Your task to perform on an android device: find photos in the google photos app Image 0: 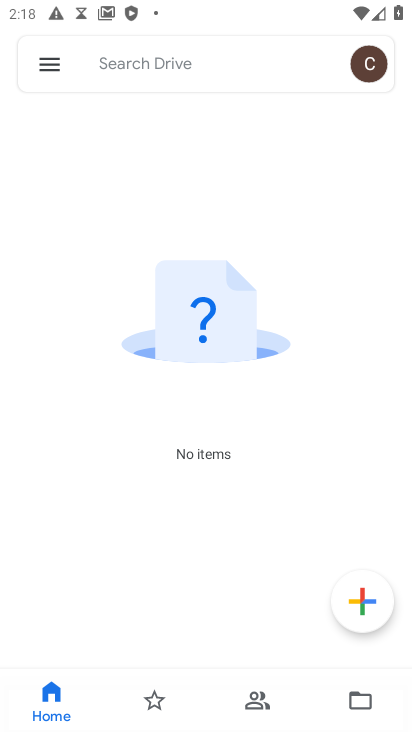
Step 0: press back button
Your task to perform on an android device: find photos in the google photos app Image 1: 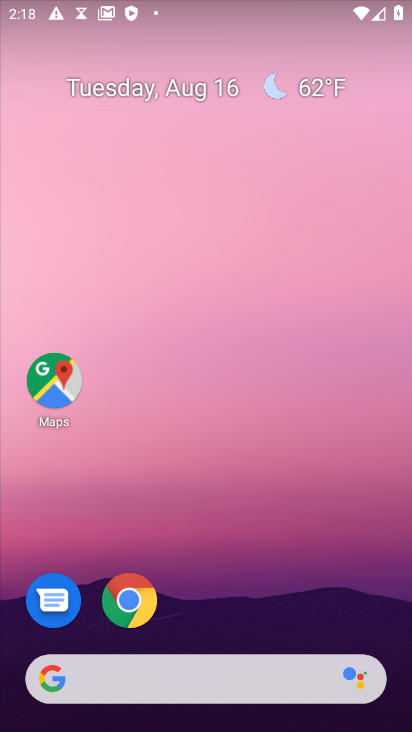
Step 1: drag from (183, 663) to (359, 9)
Your task to perform on an android device: find photos in the google photos app Image 2: 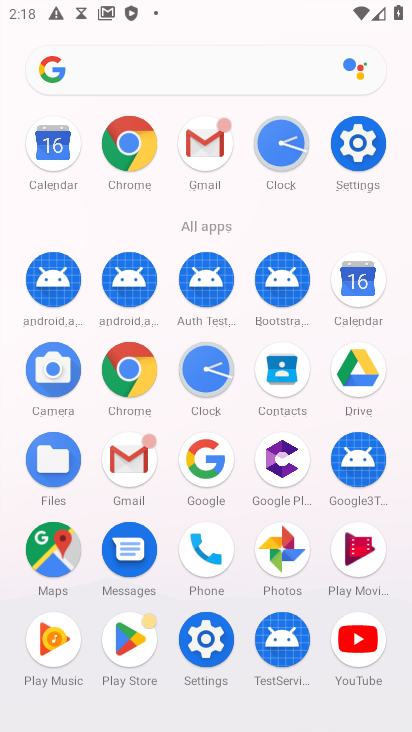
Step 2: click (291, 562)
Your task to perform on an android device: find photos in the google photos app Image 3: 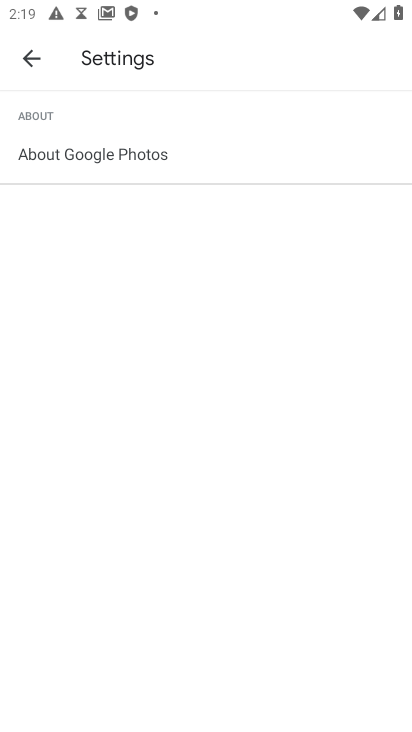
Step 3: click (39, 66)
Your task to perform on an android device: find photos in the google photos app Image 4: 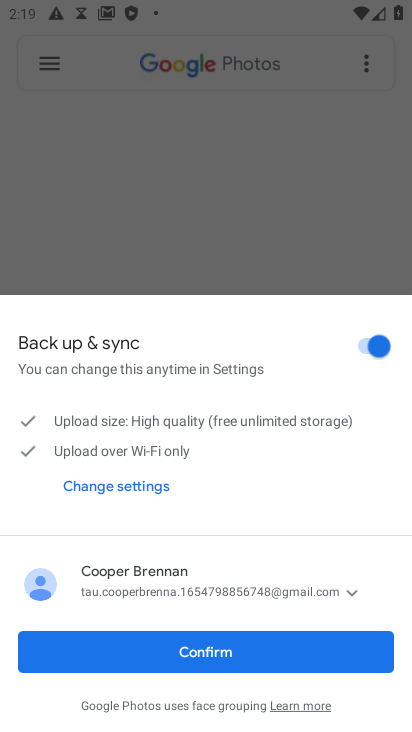
Step 4: click (203, 651)
Your task to perform on an android device: find photos in the google photos app Image 5: 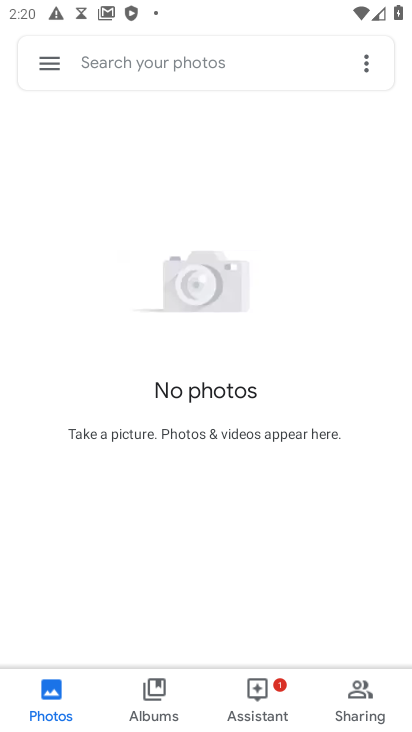
Step 5: task complete